Your task to perform on an android device: Do I have any events tomorrow? Image 0: 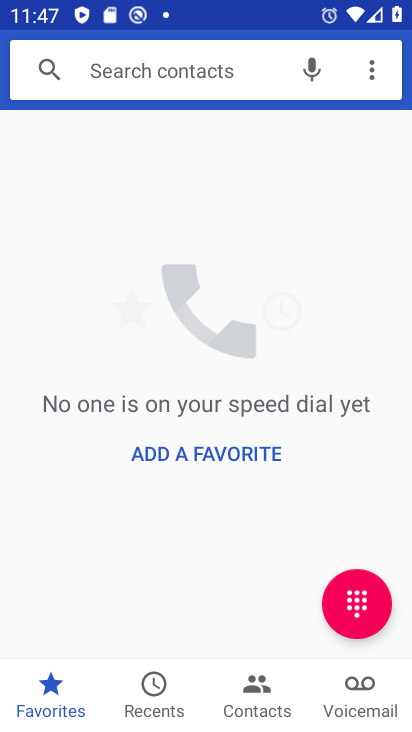
Step 0: drag from (228, 578) to (254, 58)
Your task to perform on an android device: Do I have any events tomorrow? Image 1: 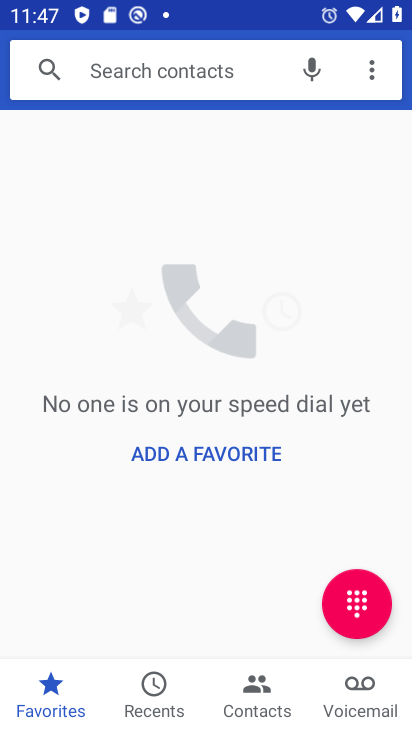
Step 1: press home button
Your task to perform on an android device: Do I have any events tomorrow? Image 2: 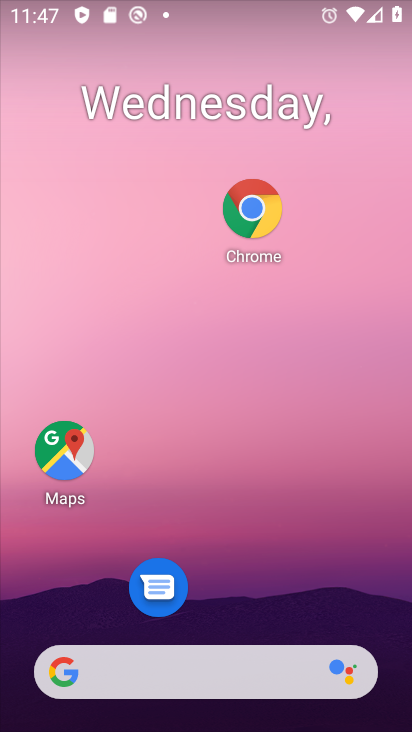
Step 2: drag from (207, 594) to (188, 0)
Your task to perform on an android device: Do I have any events tomorrow? Image 3: 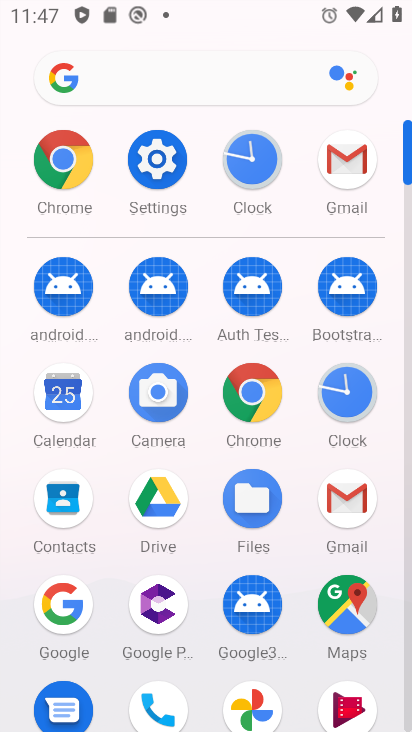
Step 3: drag from (278, 588) to (353, 237)
Your task to perform on an android device: Do I have any events tomorrow? Image 4: 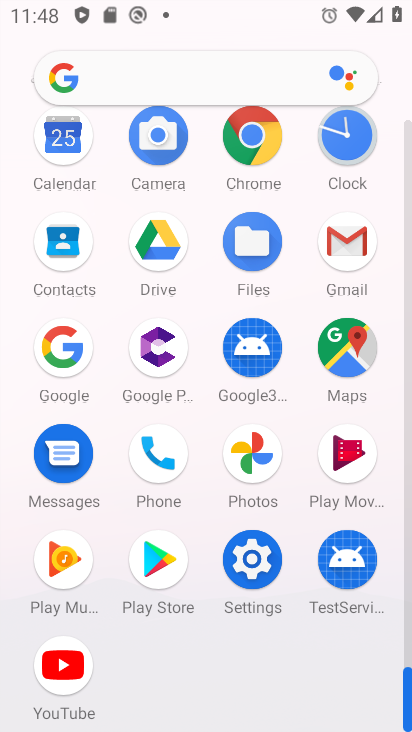
Step 4: click (55, 167)
Your task to perform on an android device: Do I have any events tomorrow? Image 5: 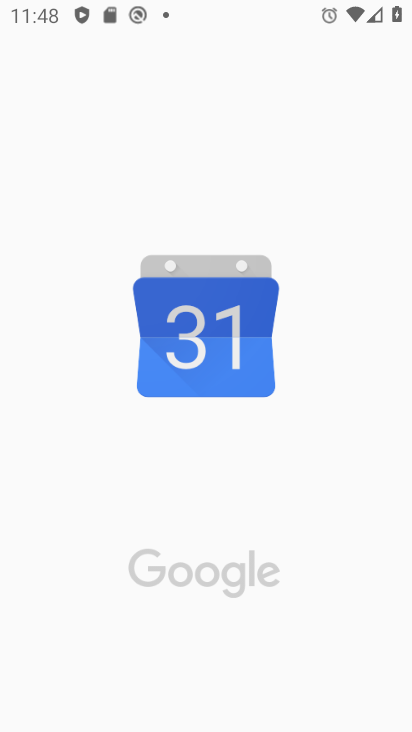
Step 5: click (72, 182)
Your task to perform on an android device: Do I have any events tomorrow? Image 6: 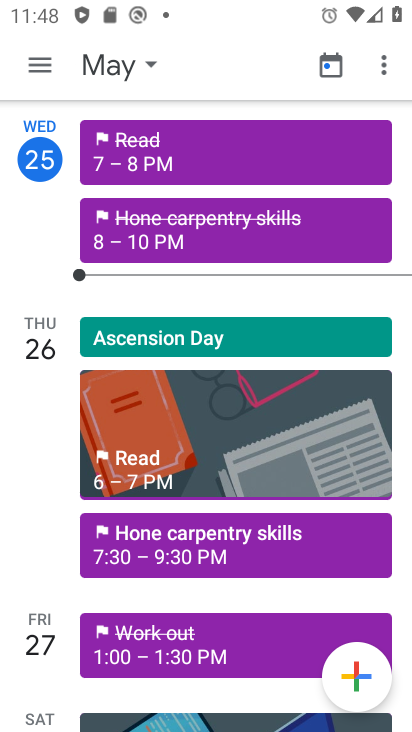
Step 6: task complete